Your task to perform on an android device: Go to Maps Image 0: 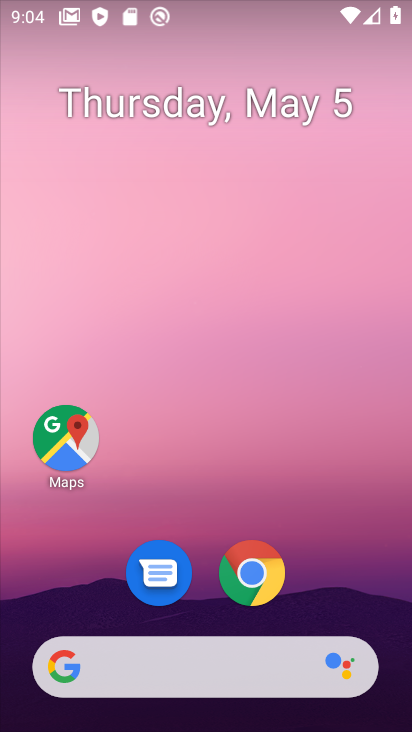
Step 0: click (56, 425)
Your task to perform on an android device: Go to Maps Image 1: 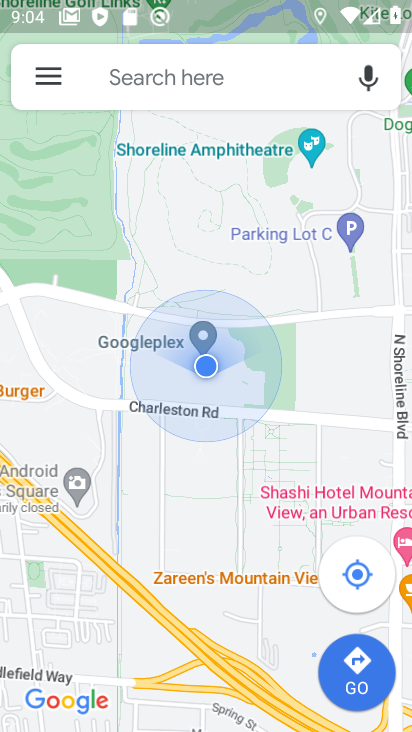
Step 1: task complete